Your task to perform on an android device: turn on airplane mode Image 0: 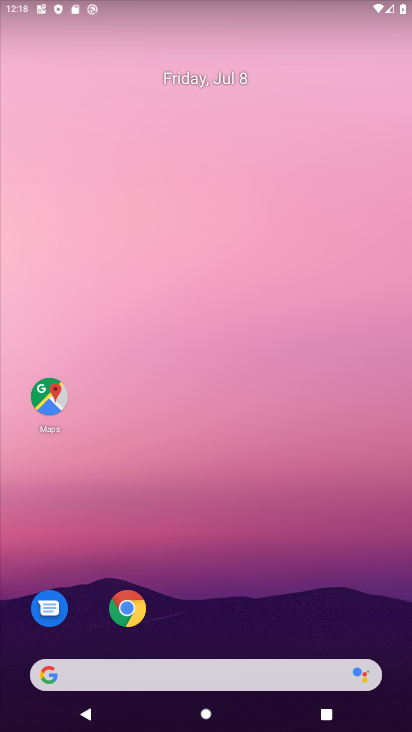
Step 0: drag from (307, 654) to (284, 71)
Your task to perform on an android device: turn on airplane mode Image 1: 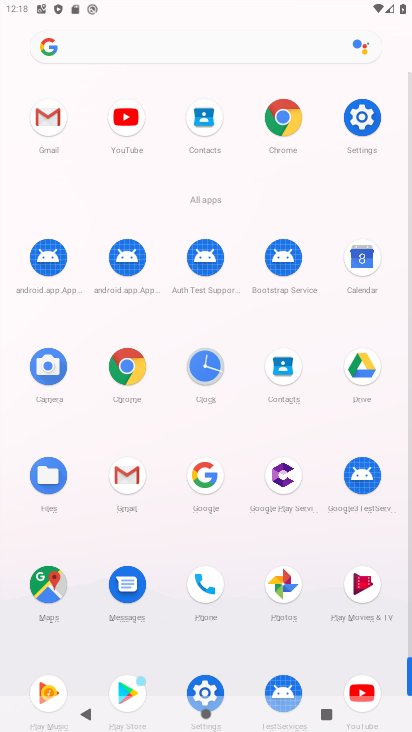
Step 1: drag from (284, 2) to (284, 417)
Your task to perform on an android device: turn on airplane mode Image 2: 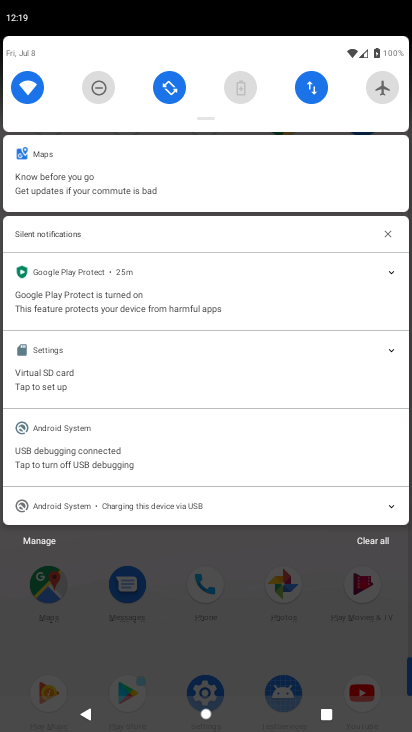
Step 2: click (377, 81)
Your task to perform on an android device: turn on airplane mode Image 3: 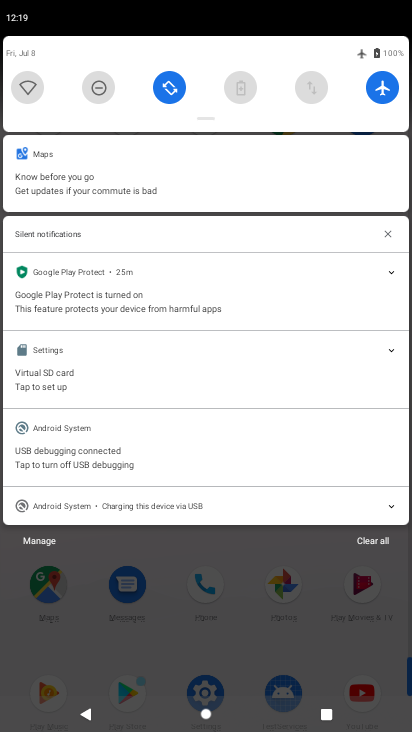
Step 3: task complete